Your task to perform on an android device: Do I have any events this weekend? Image 0: 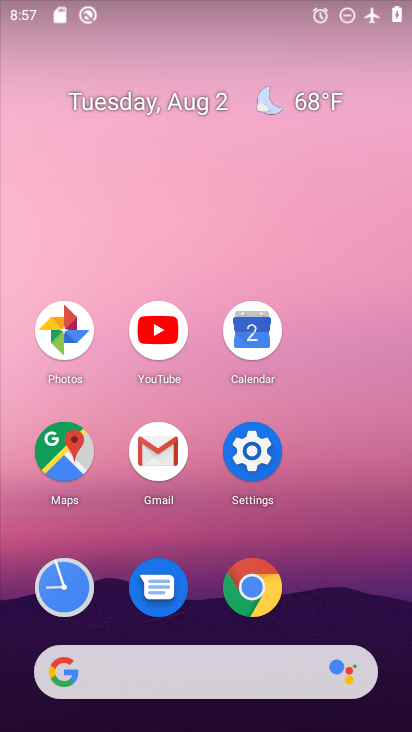
Step 0: click (244, 334)
Your task to perform on an android device: Do I have any events this weekend? Image 1: 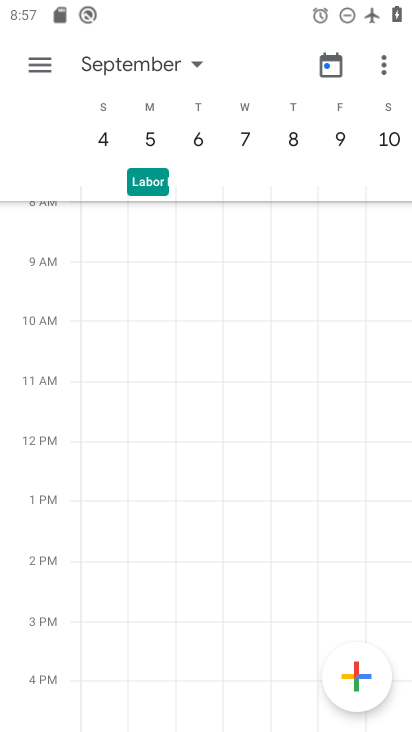
Step 1: click (193, 62)
Your task to perform on an android device: Do I have any events this weekend? Image 2: 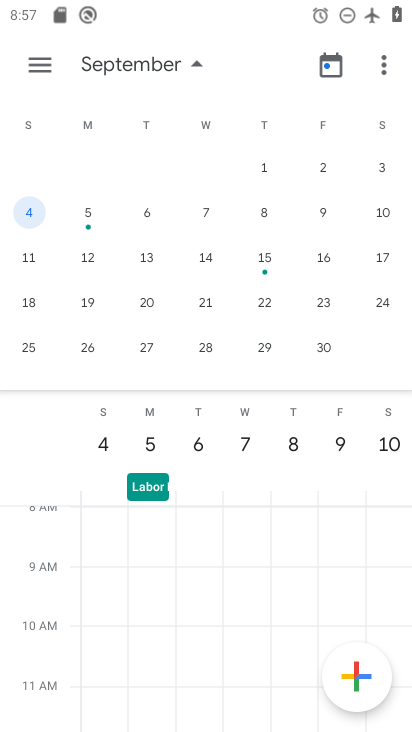
Step 2: drag from (44, 250) to (381, 308)
Your task to perform on an android device: Do I have any events this weekend? Image 3: 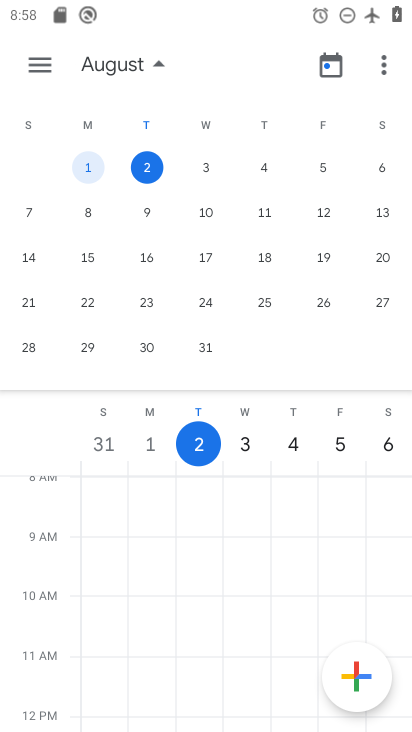
Step 3: click (154, 165)
Your task to perform on an android device: Do I have any events this weekend? Image 4: 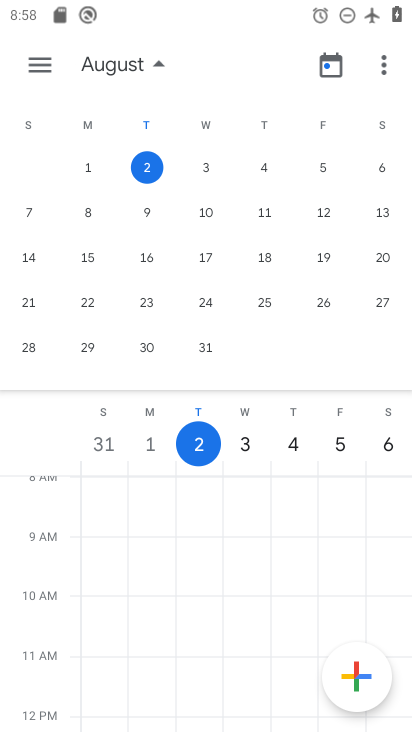
Step 4: task complete